Your task to perform on an android device: Open my contact list Image 0: 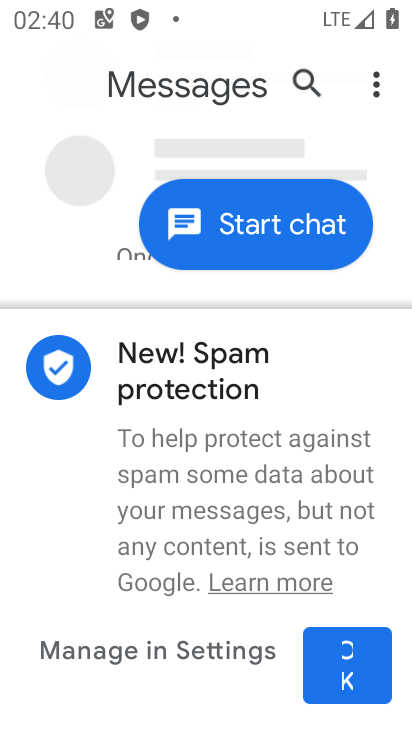
Step 0: press home button
Your task to perform on an android device: Open my contact list Image 1: 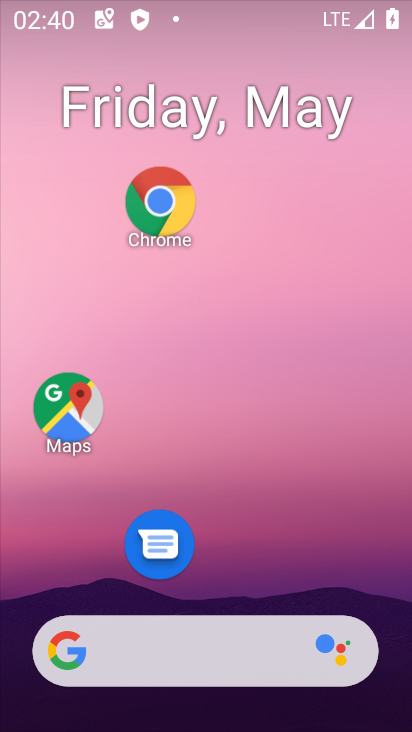
Step 1: drag from (287, 550) to (215, 250)
Your task to perform on an android device: Open my contact list Image 2: 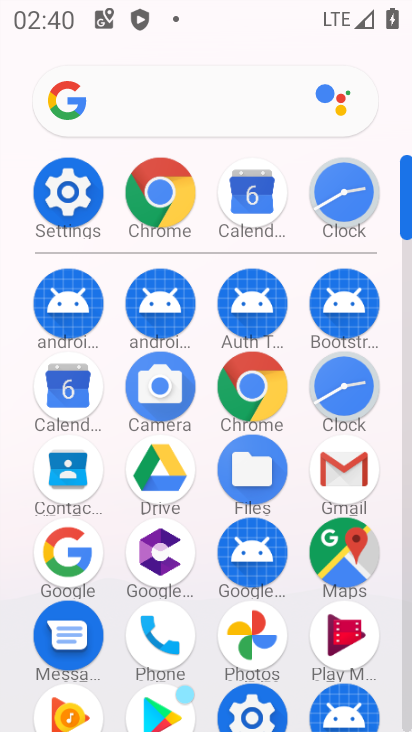
Step 2: drag from (106, 266) to (107, 121)
Your task to perform on an android device: Open my contact list Image 3: 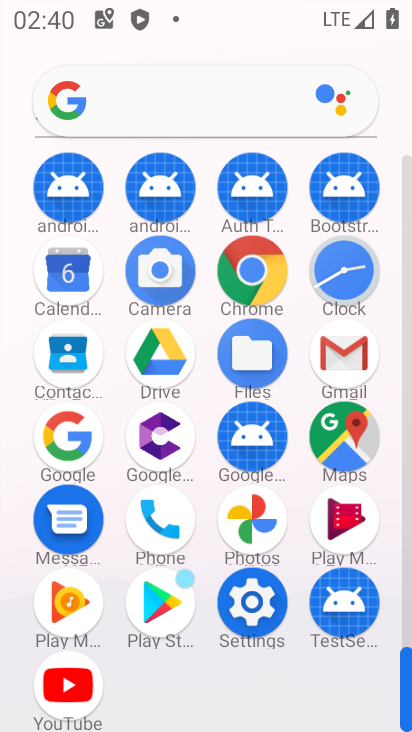
Step 3: click (77, 367)
Your task to perform on an android device: Open my contact list Image 4: 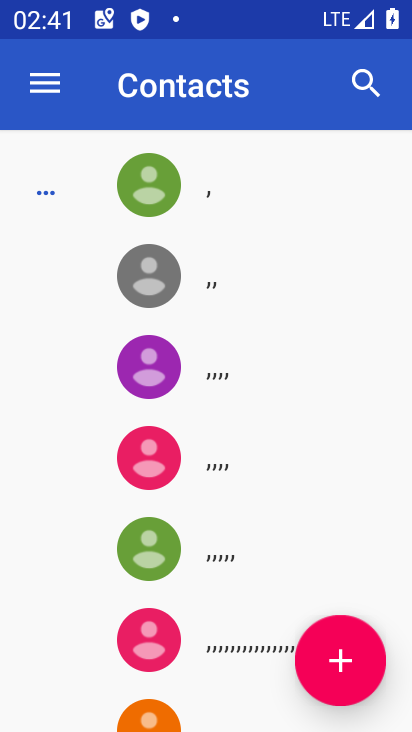
Step 4: click (341, 693)
Your task to perform on an android device: Open my contact list Image 5: 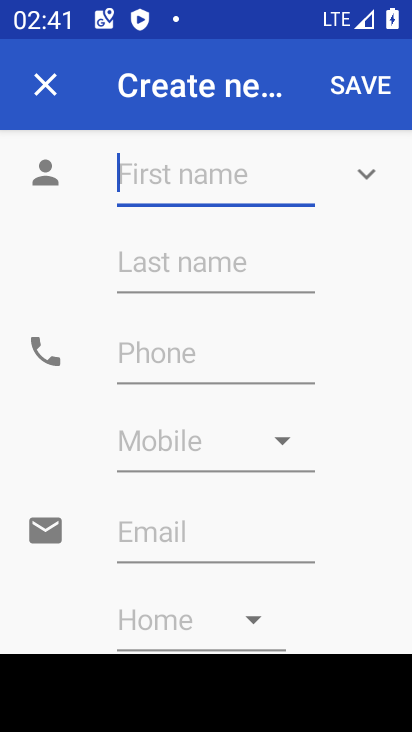
Step 5: type "rytddtd"
Your task to perform on an android device: Open my contact list Image 6: 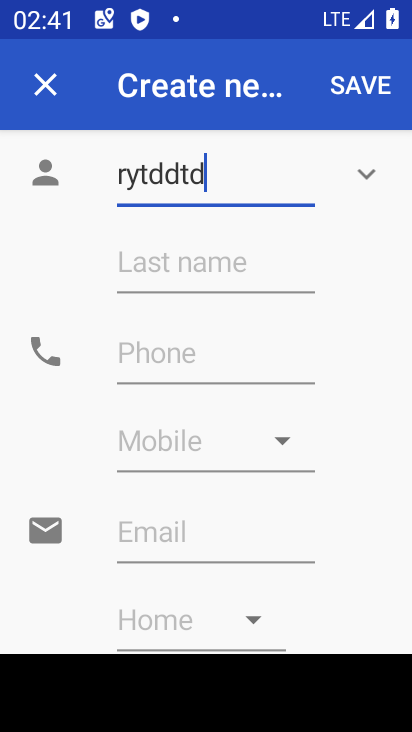
Step 6: type ""
Your task to perform on an android device: Open my contact list Image 7: 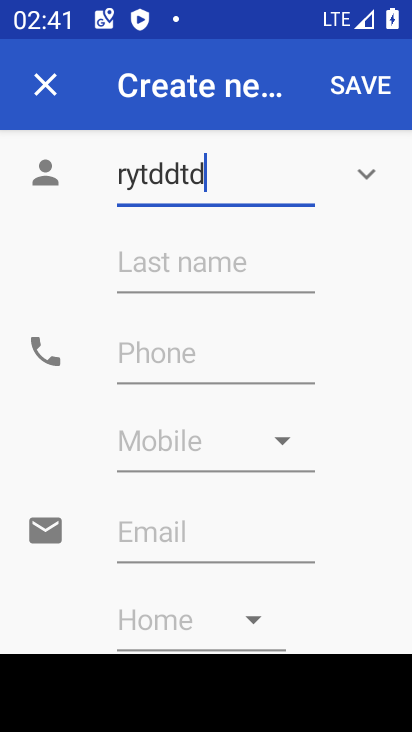
Step 7: click (349, 103)
Your task to perform on an android device: Open my contact list Image 8: 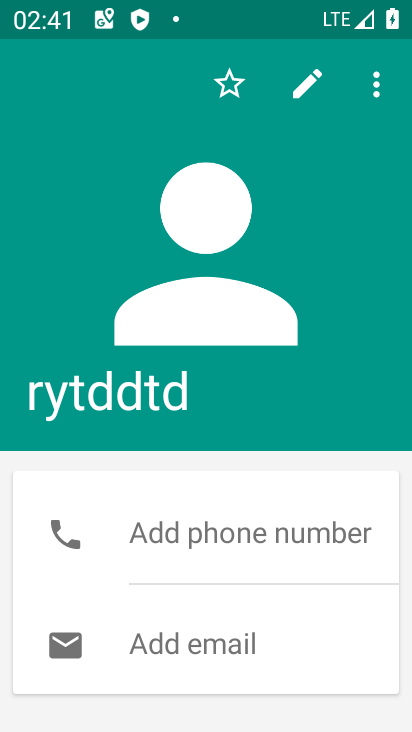
Step 8: task complete